Your task to perform on an android device: toggle show notifications on the lock screen Image 0: 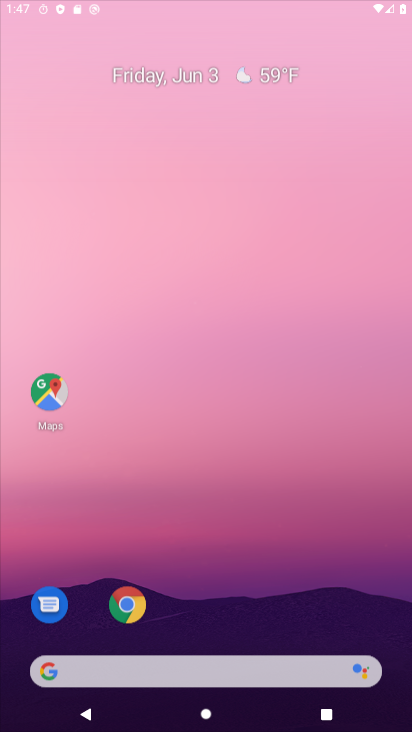
Step 0: click (263, 2)
Your task to perform on an android device: toggle show notifications on the lock screen Image 1: 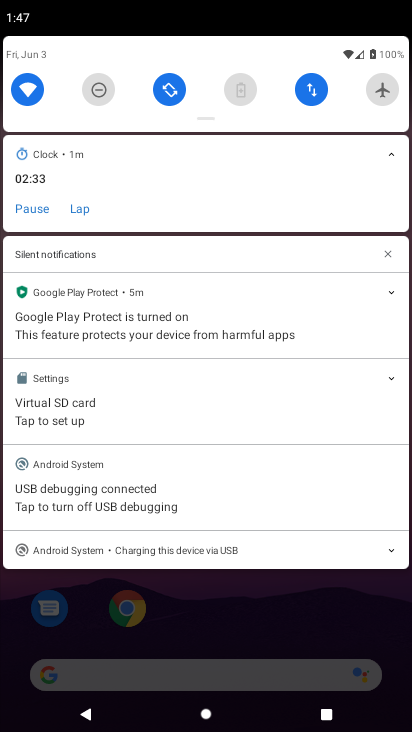
Step 1: drag from (150, 665) to (172, 146)
Your task to perform on an android device: toggle show notifications on the lock screen Image 2: 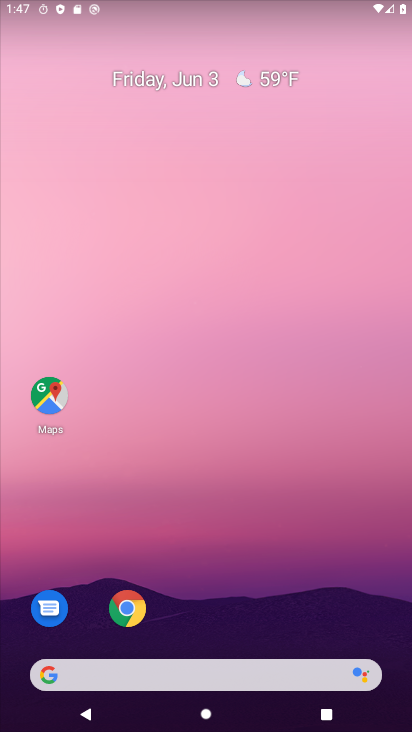
Step 2: drag from (220, 678) to (185, 14)
Your task to perform on an android device: toggle show notifications on the lock screen Image 3: 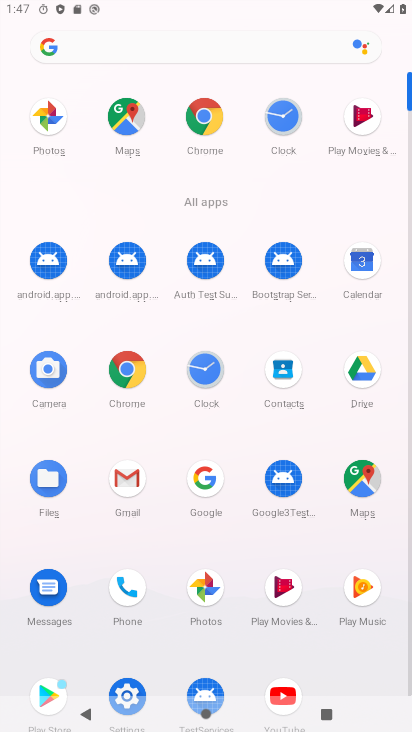
Step 3: click (123, 681)
Your task to perform on an android device: toggle show notifications on the lock screen Image 4: 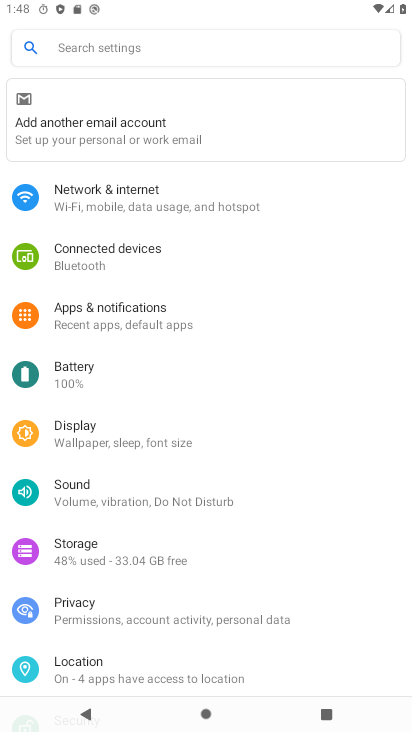
Step 4: click (132, 310)
Your task to perform on an android device: toggle show notifications on the lock screen Image 5: 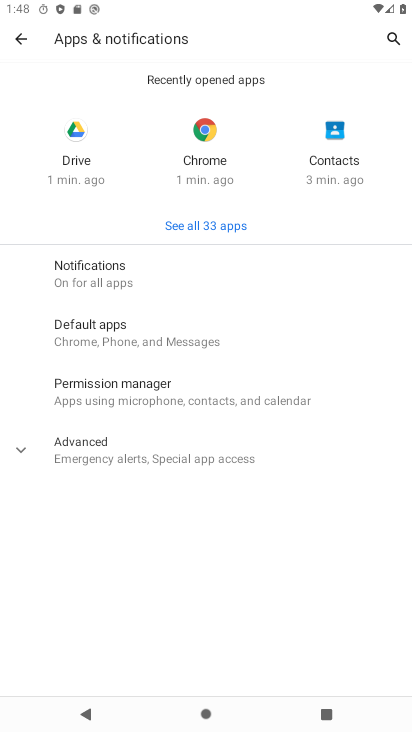
Step 5: click (107, 274)
Your task to perform on an android device: toggle show notifications on the lock screen Image 6: 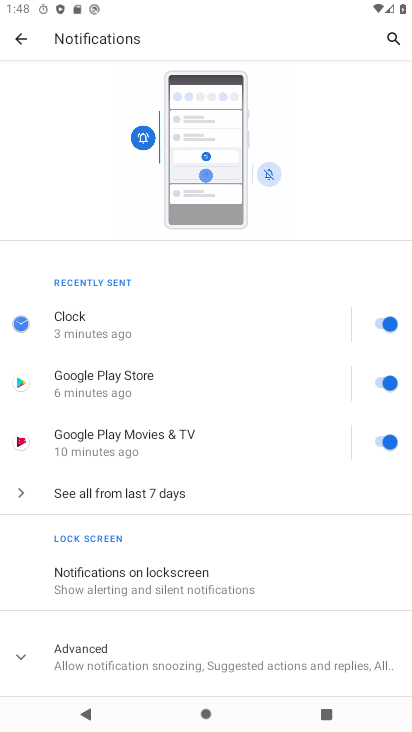
Step 6: click (232, 585)
Your task to perform on an android device: toggle show notifications on the lock screen Image 7: 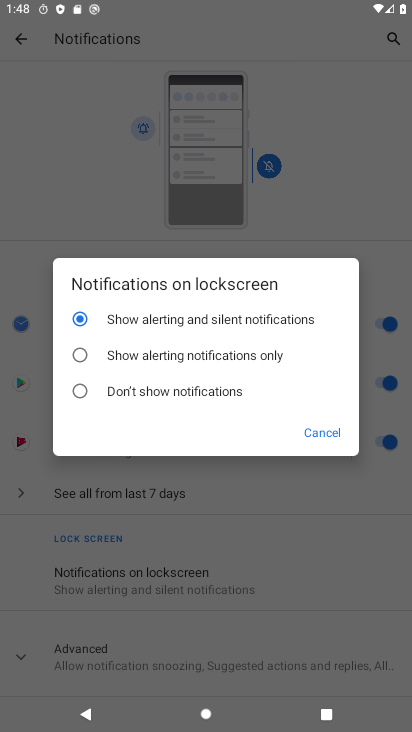
Step 7: click (120, 390)
Your task to perform on an android device: toggle show notifications on the lock screen Image 8: 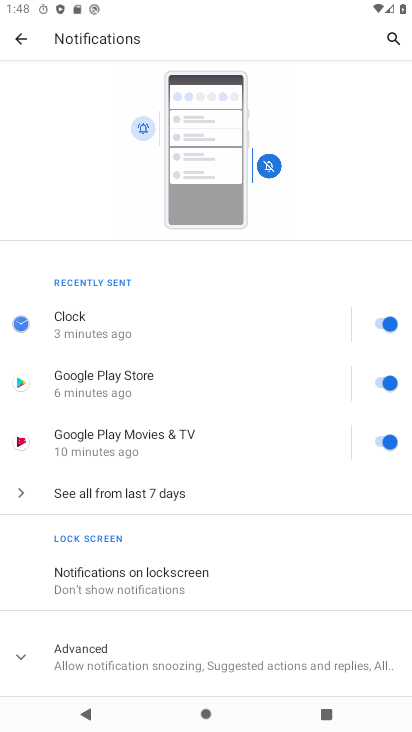
Step 8: task complete